Your task to perform on an android device: open sync settings in chrome Image 0: 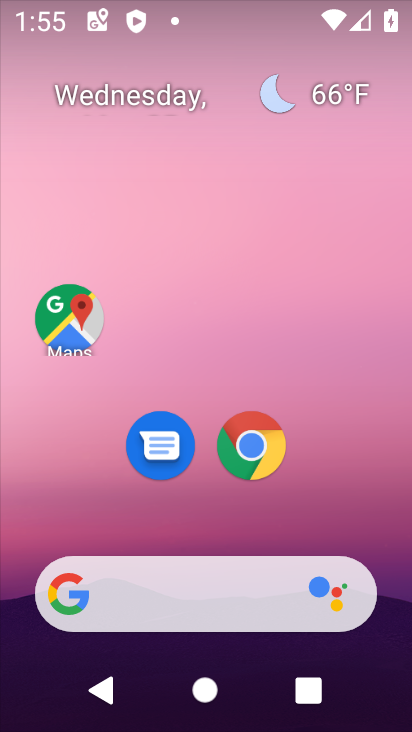
Step 0: click (254, 444)
Your task to perform on an android device: open sync settings in chrome Image 1: 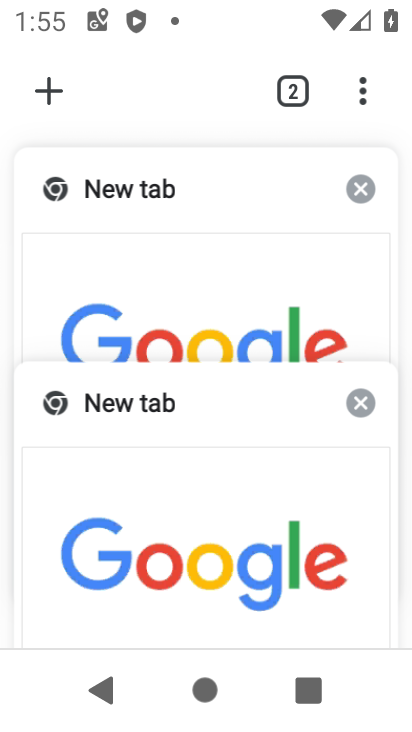
Step 1: click (160, 286)
Your task to perform on an android device: open sync settings in chrome Image 2: 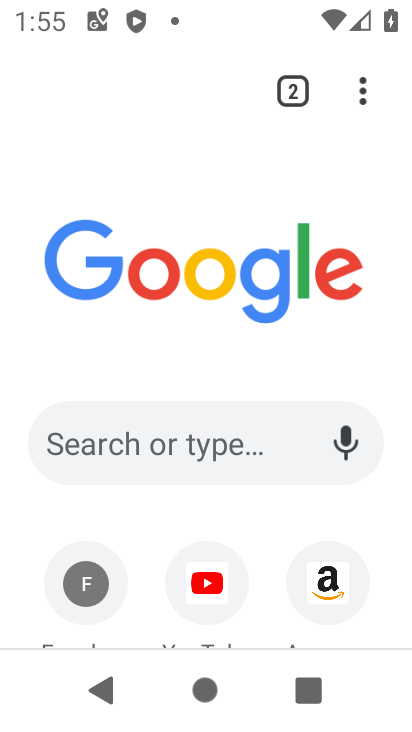
Step 2: click (361, 95)
Your task to perform on an android device: open sync settings in chrome Image 3: 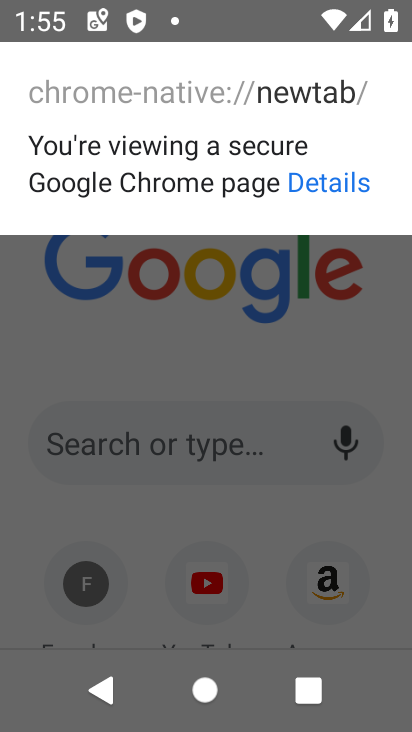
Step 3: press back button
Your task to perform on an android device: open sync settings in chrome Image 4: 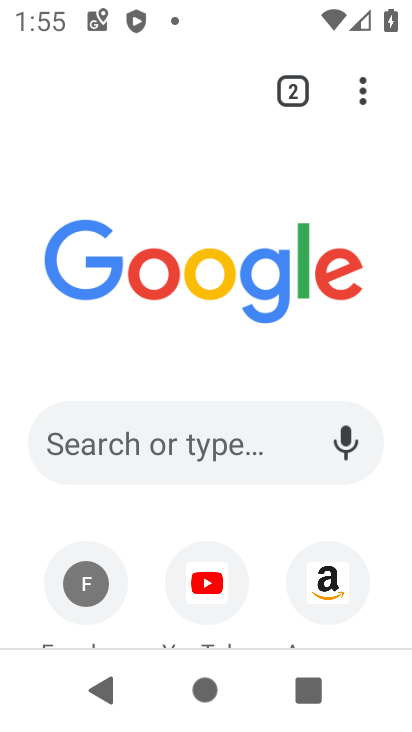
Step 4: click (370, 95)
Your task to perform on an android device: open sync settings in chrome Image 5: 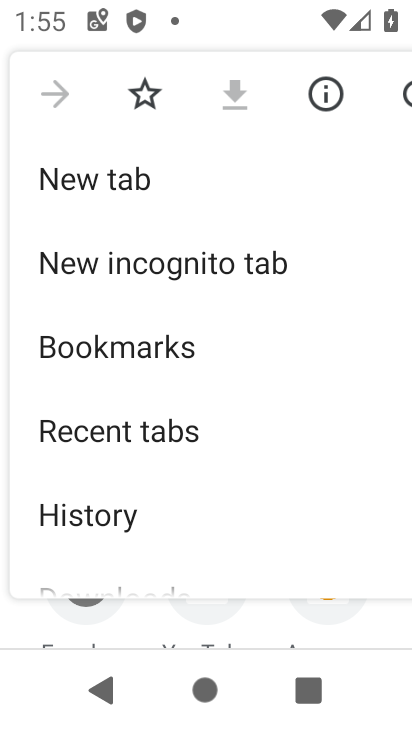
Step 5: drag from (61, 529) to (210, 151)
Your task to perform on an android device: open sync settings in chrome Image 6: 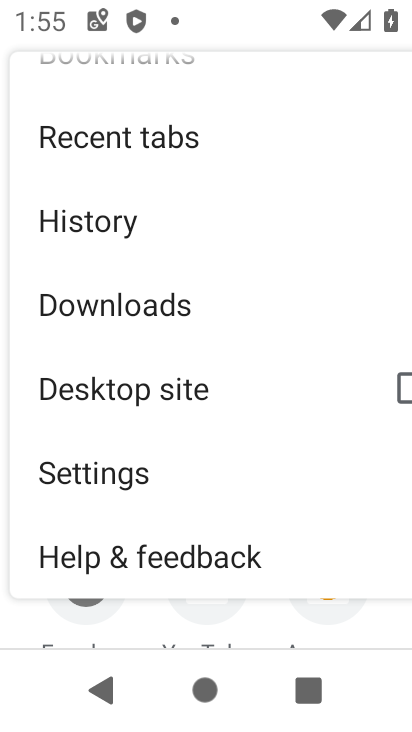
Step 6: click (56, 481)
Your task to perform on an android device: open sync settings in chrome Image 7: 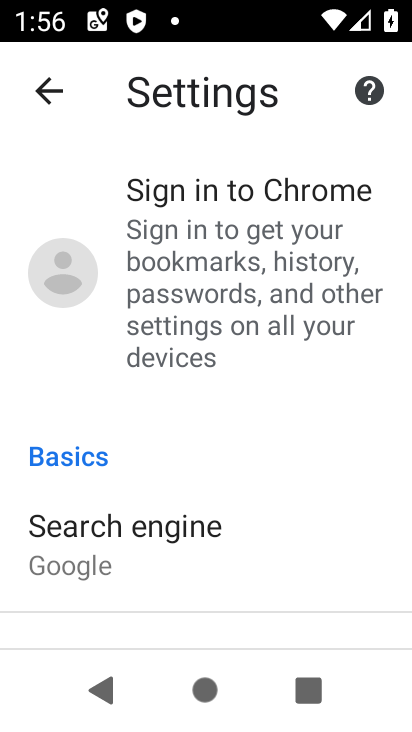
Step 7: drag from (10, 406) to (146, 102)
Your task to perform on an android device: open sync settings in chrome Image 8: 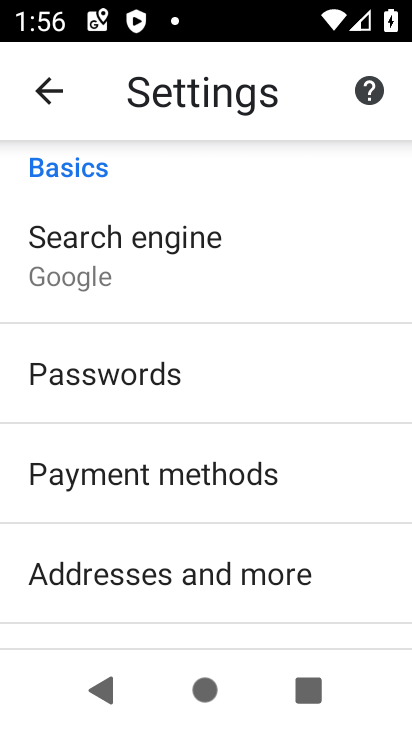
Step 8: click (191, 81)
Your task to perform on an android device: open sync settings in chrome Image 9: 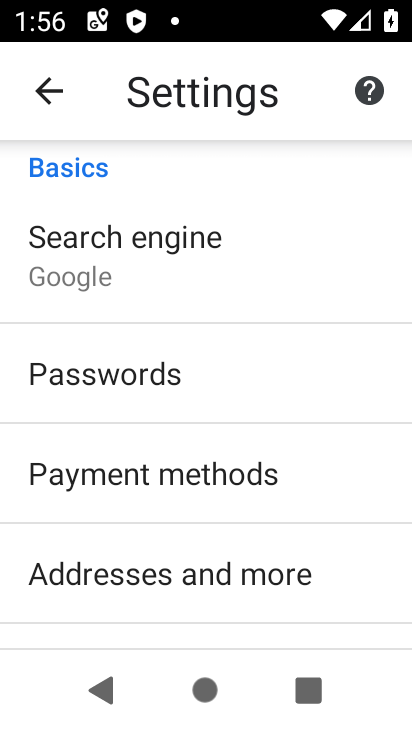
Step 9: drag from (46, 517) to (233, 167)
Your task to perform on an android device: open sync settings in chrome Image 10: 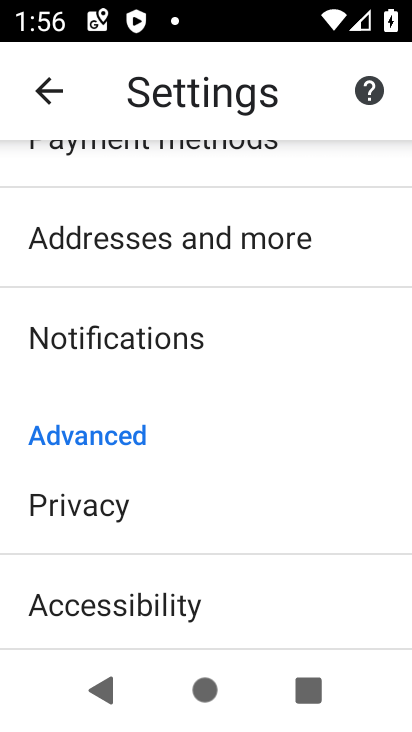
Step 10: drag from (4, 537) to (226, 121)
Your task to perform on an android device: open sync settings in chrome Image 11: 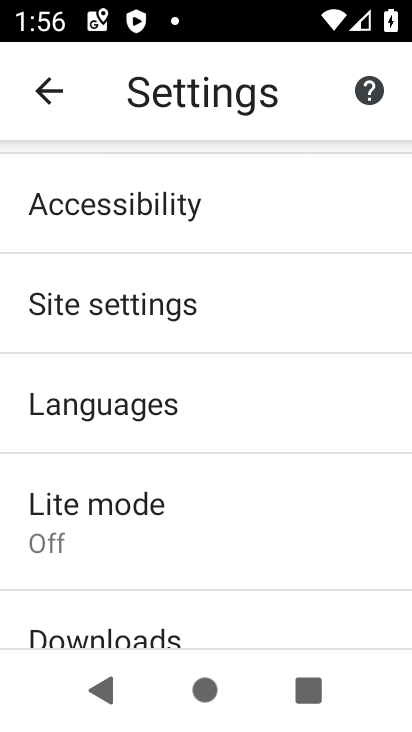
Step 11: drag from (37, 460) to (176, 193)
Your task to perform on an android device: open sync settings in chrome Image 12: 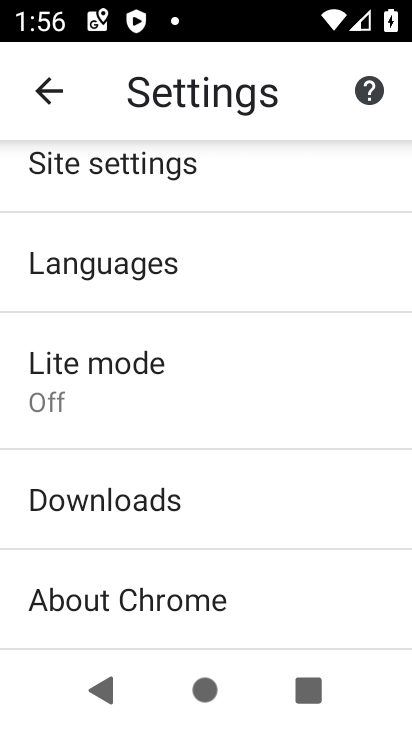
Step 12: drag from (170, 278) to (126, 540)
Your task to perform on an android device: open sync settings in chrome Image 13: 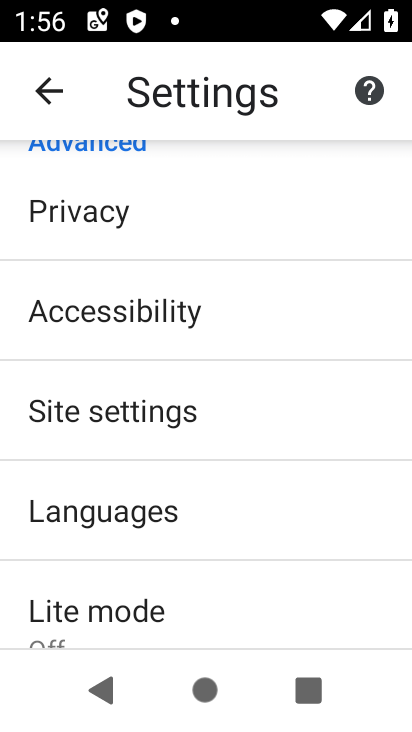
Step 13: click (136, 427)
Your task to perform on an android device: open sync settings in chrome Image 14: 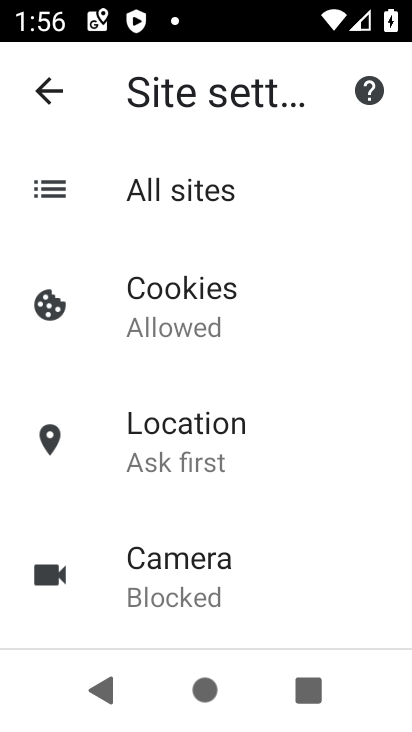
Step 14: drag from (18, 550) to (172, 161)
Your task to perform on an android device: open sync settings in chrome Image 15: 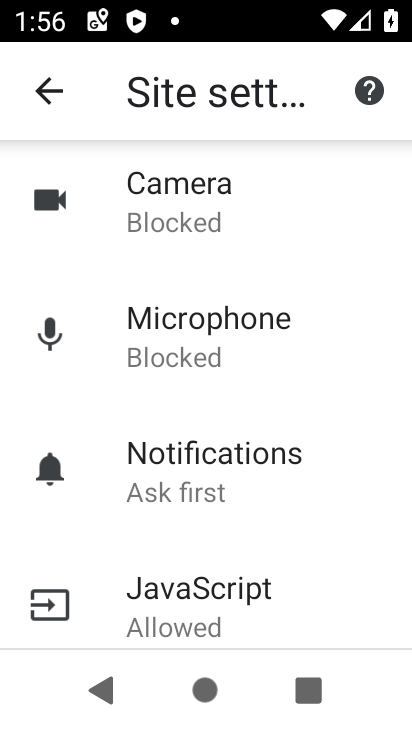
Step 15: drag from (18, 633) to (231, 195)
Your task to perform on an android device: open sync settings in chrome Image 16: 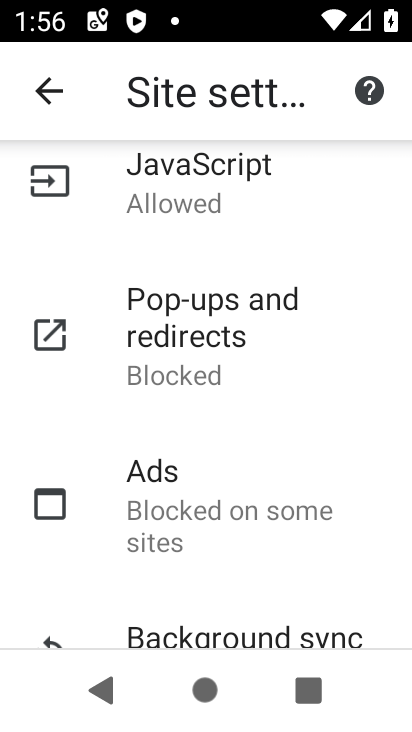
Step 16: drag from (118, 469) to (227, 259)
Your task to perform on an android device: open sync settings in chrome Image 17: 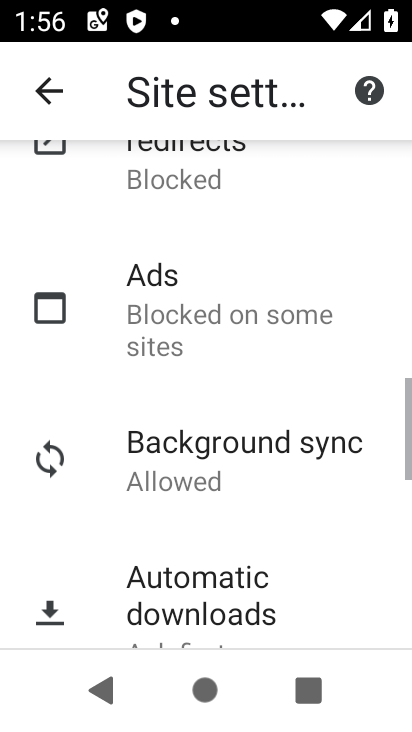
Step 17: click (168, 463)
Your task to perform on an android device: open sync settings in chrome Image 18: 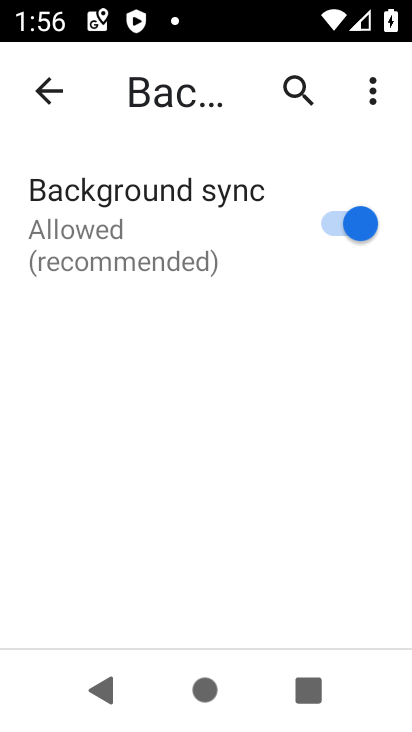
Step 18: task complete